Your task to perform on an android device: delete a single message in the gmail app Image 0: 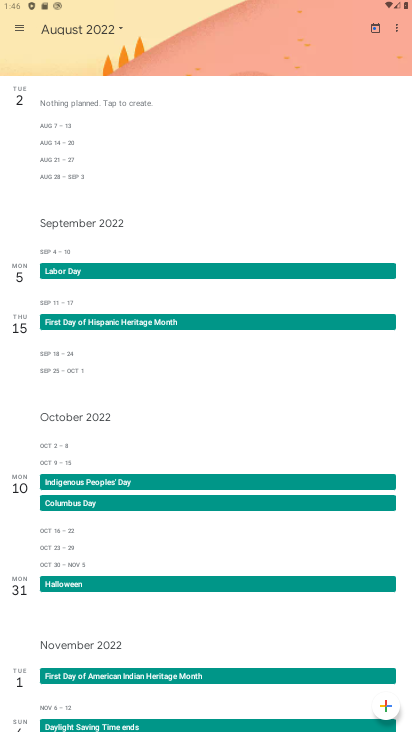
Step 0: press home button
Your task to perform on an android device: delete a single message in the gmail app Image 1: 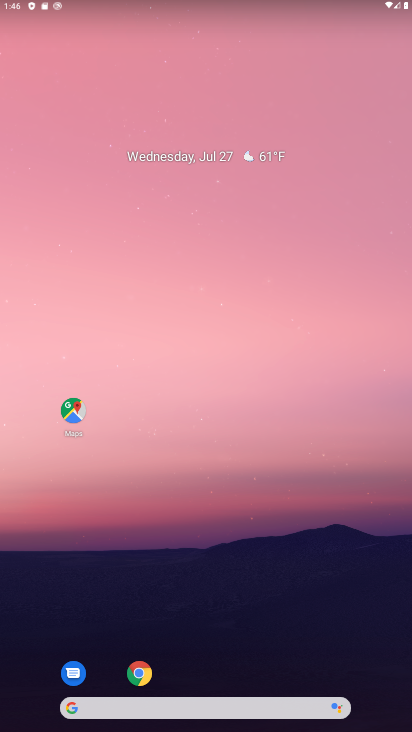
Step 1: drag from (212, 680) to (184, 94)
Your task to perform on an android device: delete a single message in the gmail app Image 2: 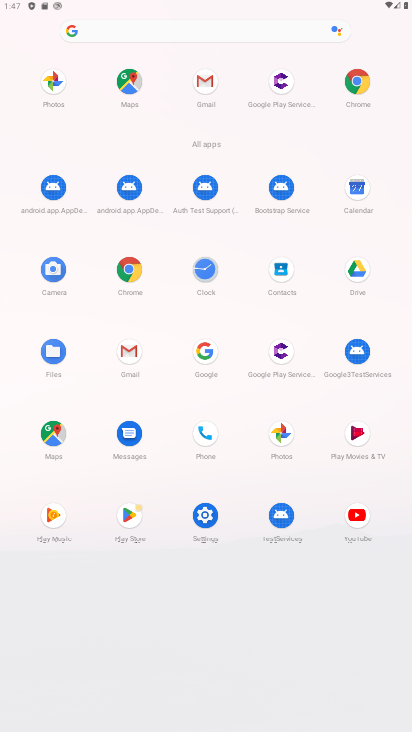
Step 2: click (215, 87)
Your task to perform on an android device: delete a single message in the gmail app Image 3: 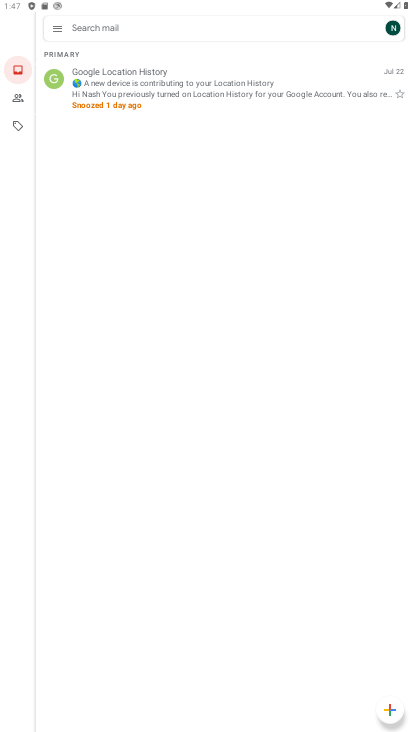
Step 3: click (57, 73)
Your task to perform on an android device: delete a single message in the gmail app Image 4: 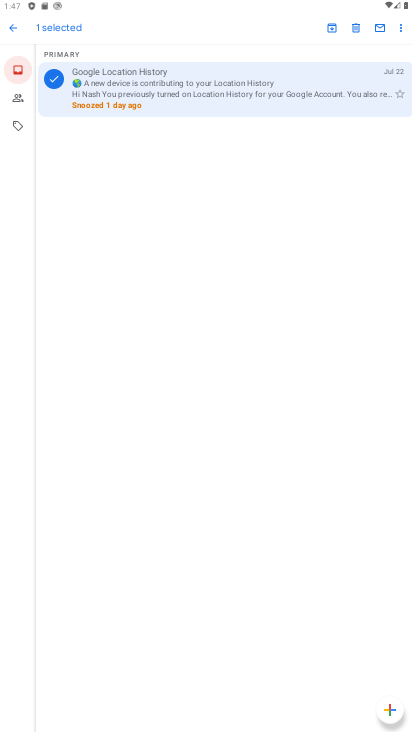
Step 4: click (355, 31)
Your task to perform on an android device: delete a single message in the gmail app Image 5: 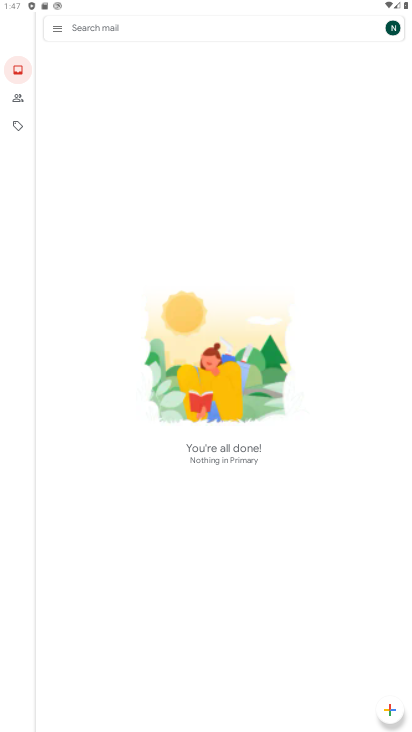
Step 5: task complete